Your task to perform on an android device: Open battery settings Image 0: 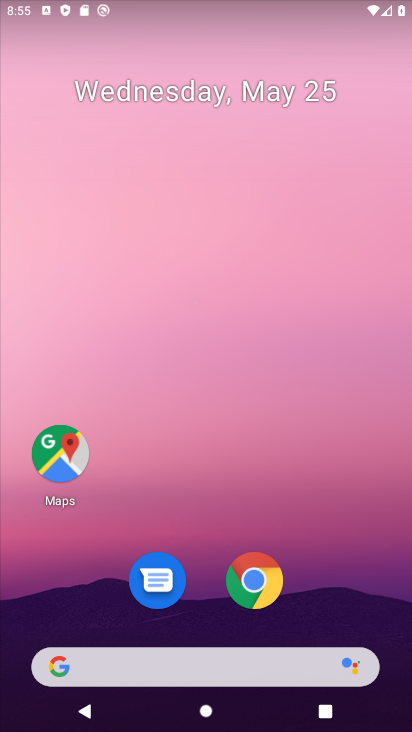
Step 0: drag from (0, 0) to (245, 126)
Your task to perform on an android device: Open battery settings Image 1: 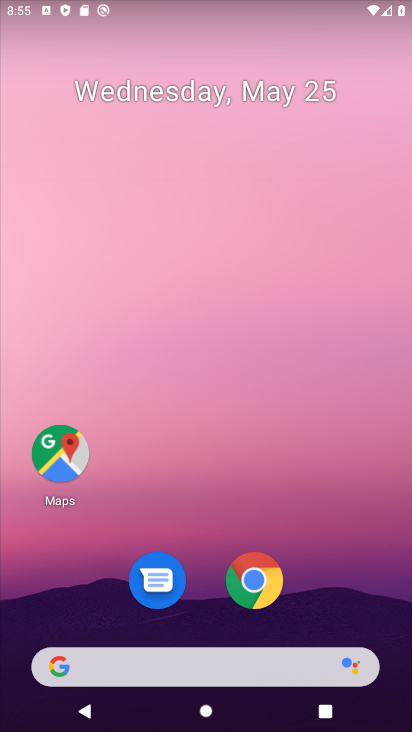
Step 1: drag from (12, 641) to (349, 74)
Your task to perform on an android device: Open battery settings Image 2: 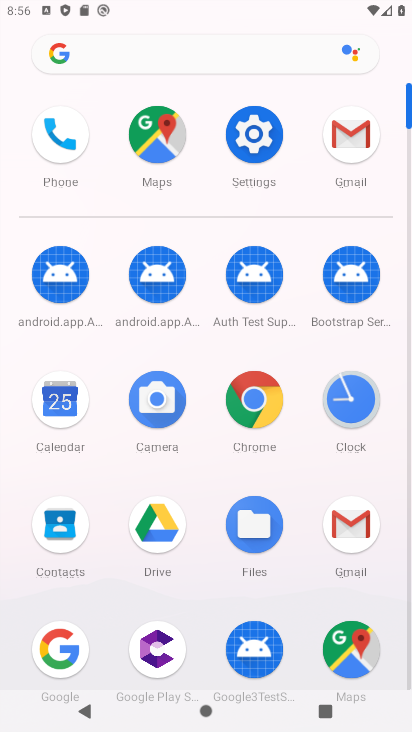
Step 2: click (232, 148)
Your task to perform on an android device: Open battery settings Image 3: 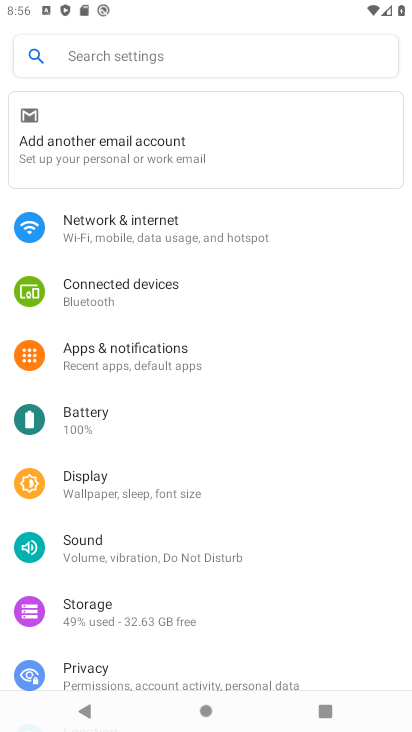
Step 3: click (114, 406)
Your task to perform on an android device: Open battery settings Image 4: 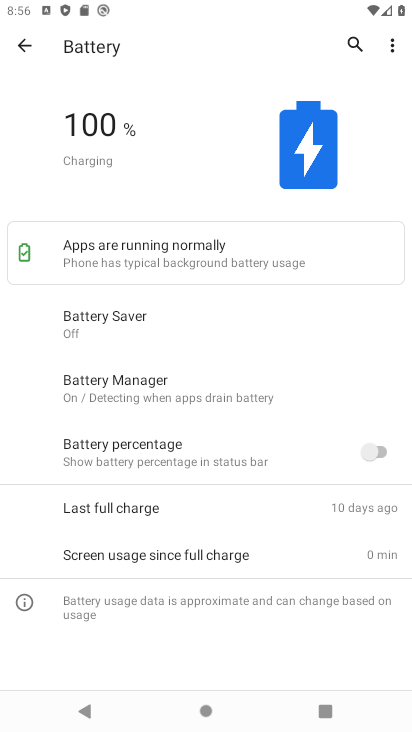
Step 4: task complete